Your task to perform on an android device: Go to Yahoo.com Image 0: 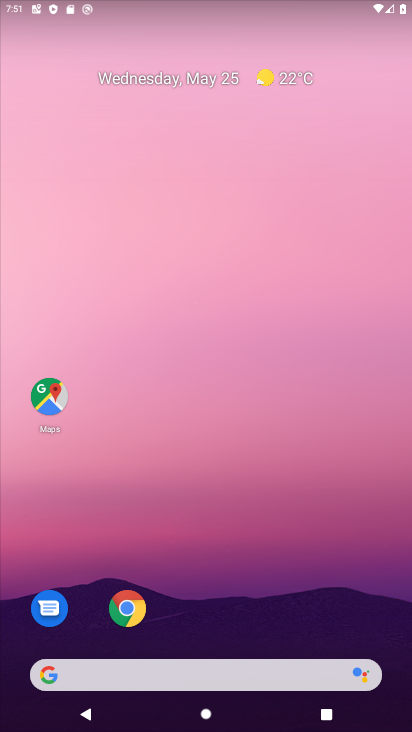
Step 0: click (127, 608)
Your task to perform on an android device: Go to Yahoo.com Image 1: 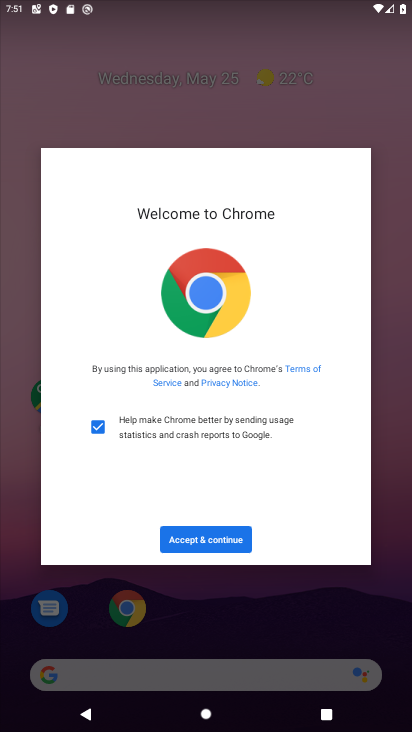
Step 1: click (194, 538)
Your task to perform on an android device: Go to Yahoo.com Image 2: 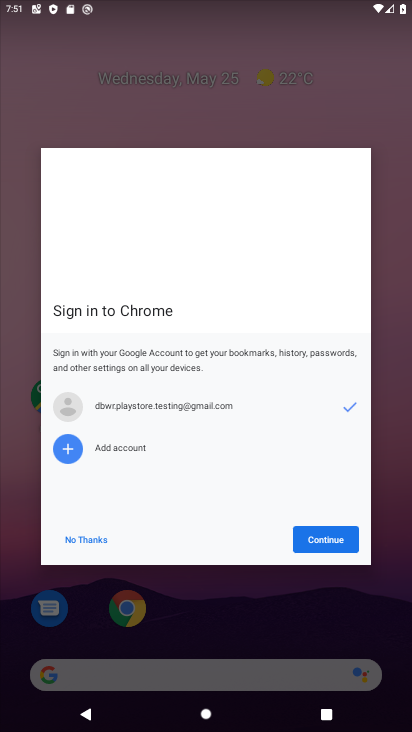
Step 2: click (330, 541)
Your task to perform on an android device: Go to Yahoo.com Image 3: 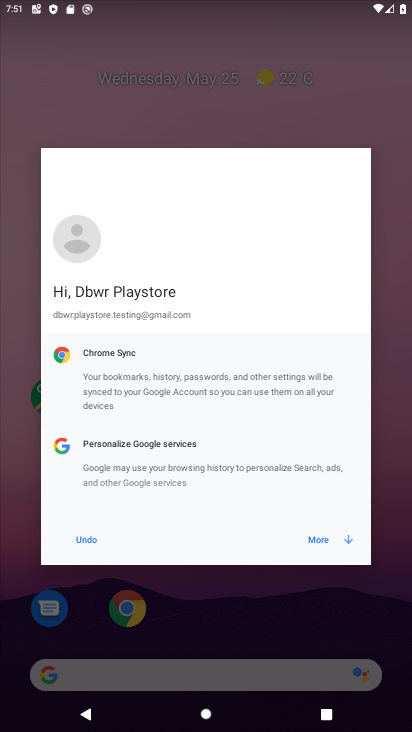
Step 3: click (325, 541)
Your task to perform on an android device: Go to Yahoo.com Image 4: 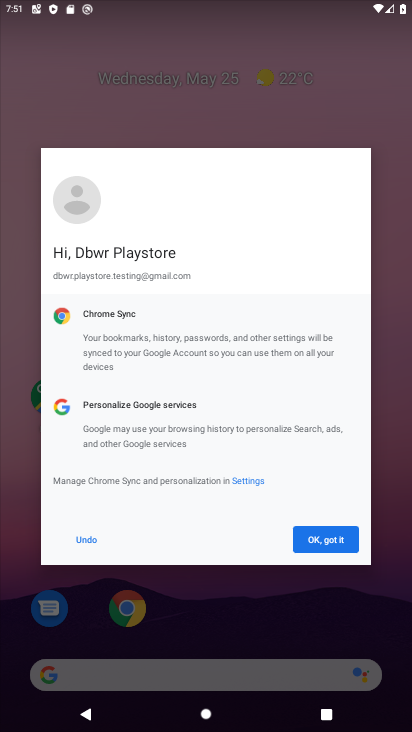
Step 4: click (325, 541)
Your task to perform on an android device: Go to Yahoo.com Image 5: 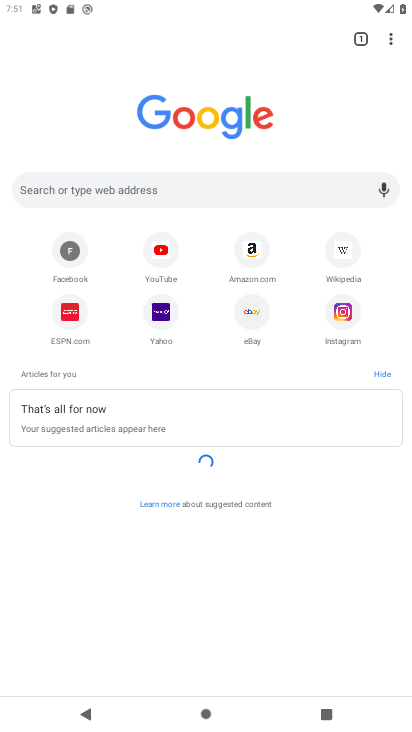
Step 5: click (158, 192)
Your task to perform on an android device: Go to Yahoo.com Image 6: 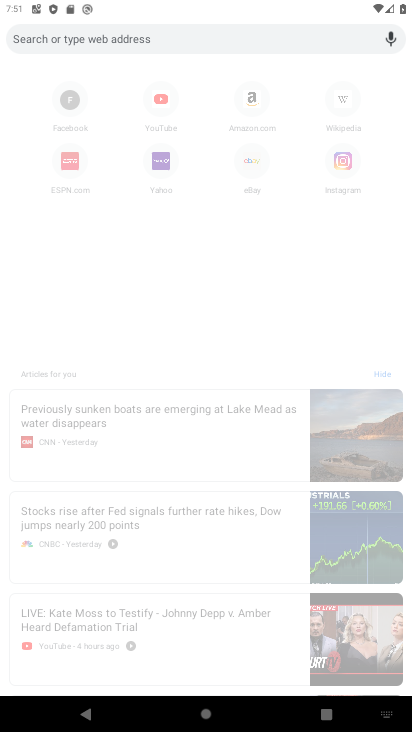
Step 6: type "Yahoo.com"
Your task to perform on an android device: Go to Yahoo.com Image 7: 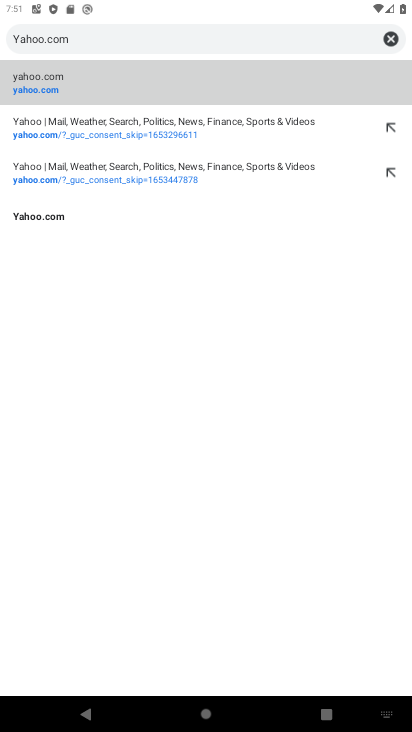
Step 7: click (55, 221)
Your task to perform on an android device: Go to Yahoo.com Image 8: 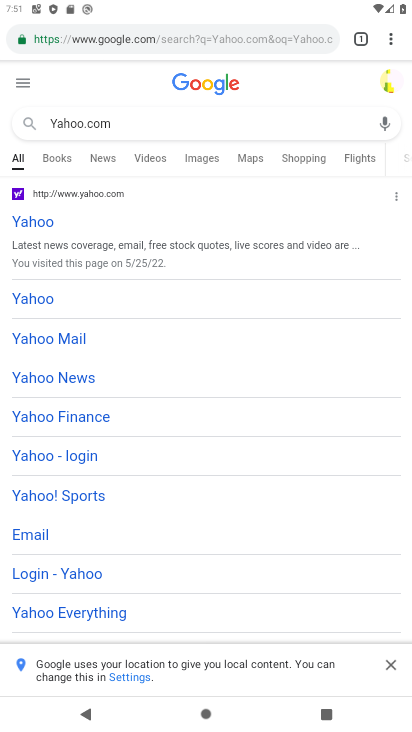
Step 8: click (44, 225)
Your task to perform on an android device: Go to Yahoo.com Image 9: 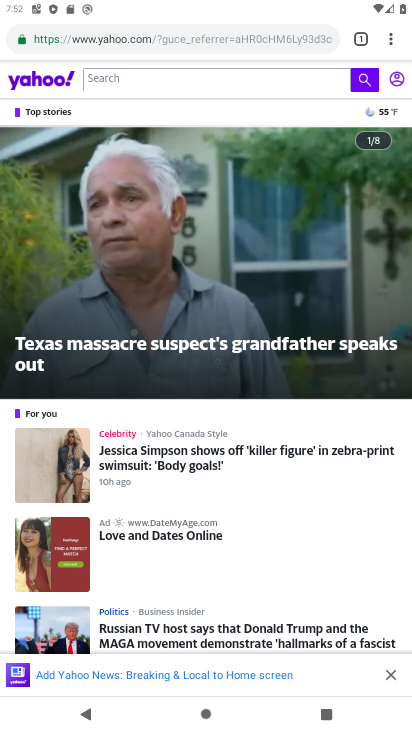
Step 9: task complete